Your task to perform on an android device: turn smart compose on in the gmail app Image 0: 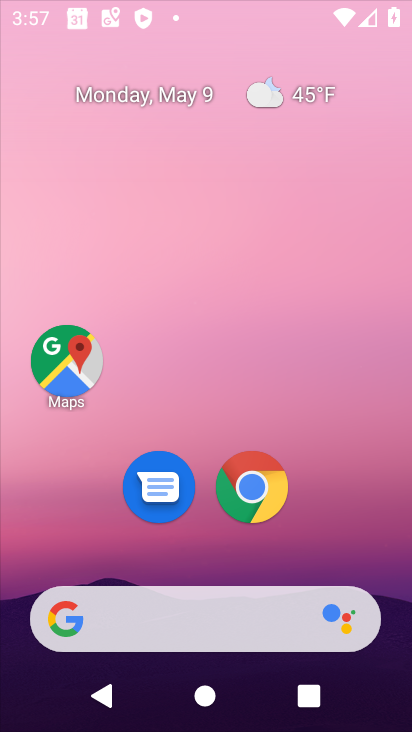
Step 0: click (129, 330)
Your task to perform on an android device: turn smart compose on in the gmail app Image 1: 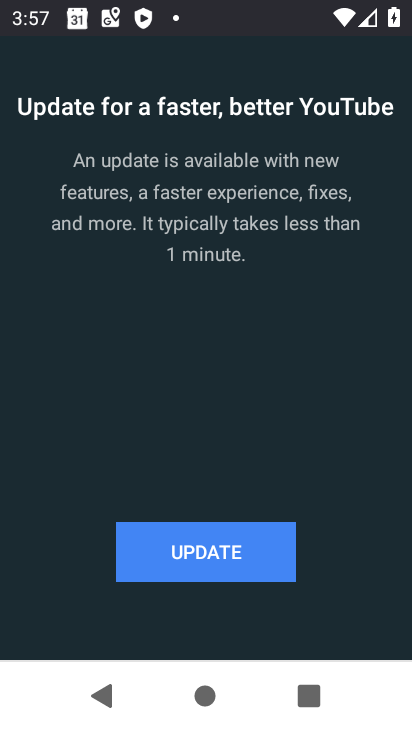
Step 1: press home button
Your task to perform on an android device: turn smart compose on in the gmail app Image 2: 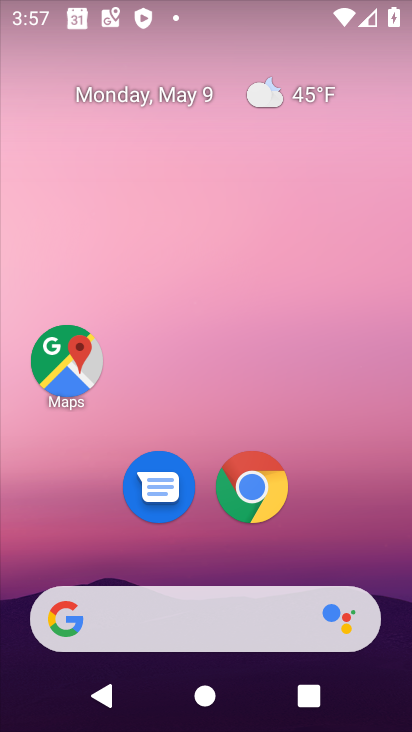
Step 2: drag from (178, 595) to (143, 348)
Your task to perform on an android device: turn smart compose on in the gmail app Image 3: 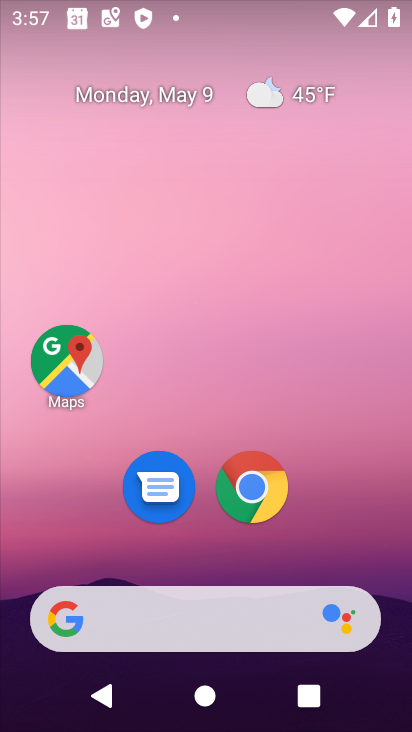
Step 3: drag from (207, 583) to (146, 226)
Your task to perform on an android device: turn smart compose on in the gmail app Image 4: 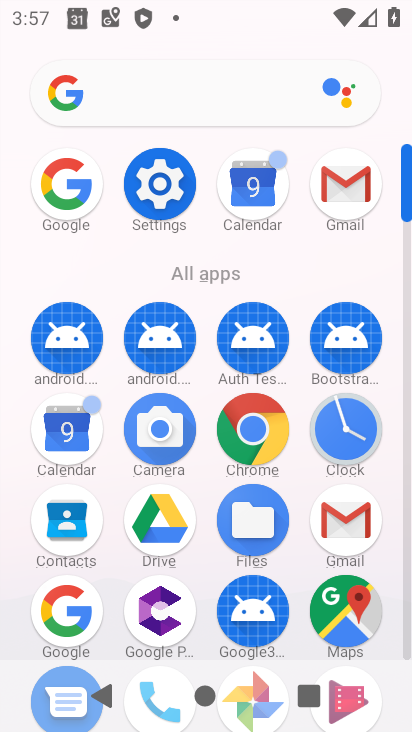
Step 4: click (328, 190)
Your task to perform on an android device: turn smart compose on in the gmail app Image 5: 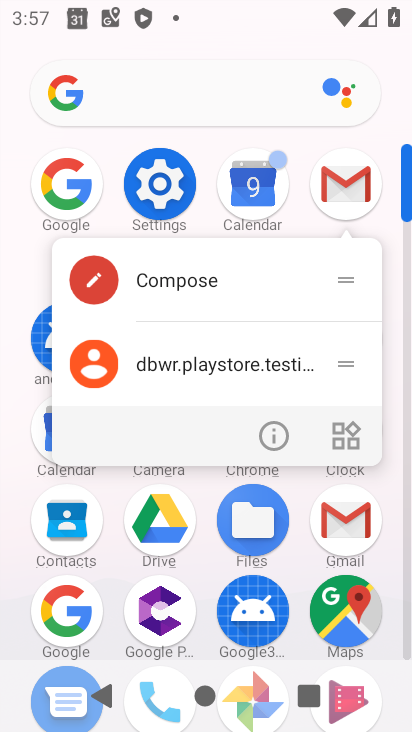
Step 5: click (353, 185)
Your task to perform on an android device: turn smart compose on in the gmail app Image 6: 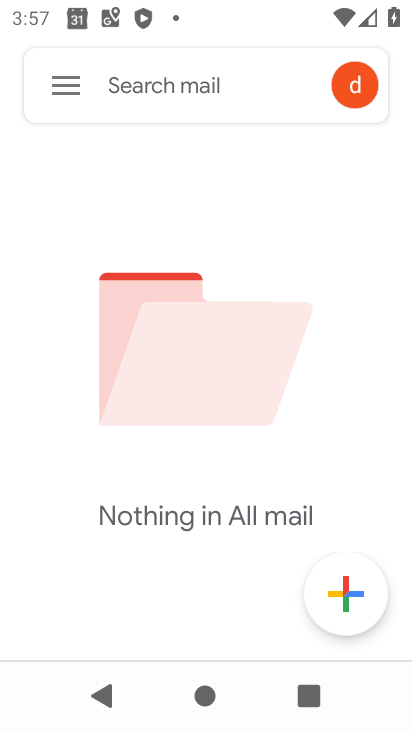
Step 6: click (80, 93)
Your task to perform on an android device: turn smart compose on in the gmail app Image 7: 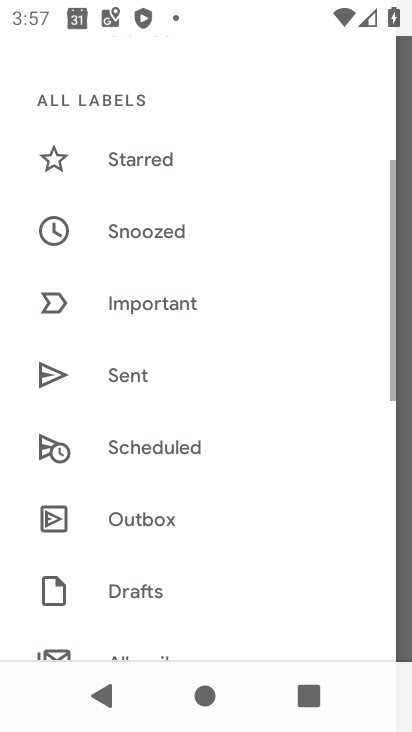
Step 7: drag from (148, 627) to (130, 264)
Your task to perform on an android device: turn smart compose on in the gmail app Image 8: 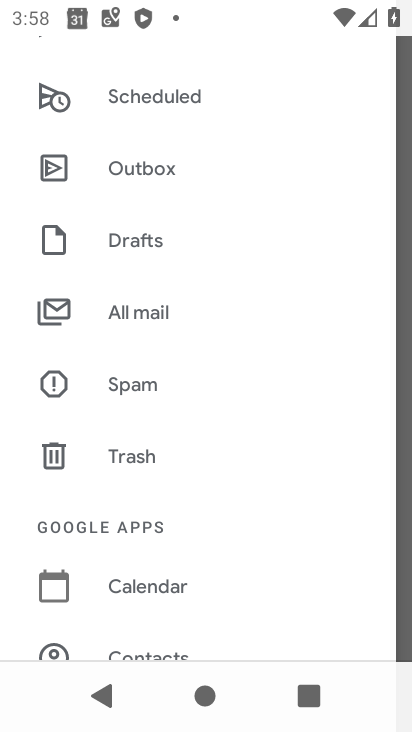
Step 8: drag from (127, 611) to (128, 323)
Your task to perform on an android device: turn smart compose on in the gmail app Image 9: 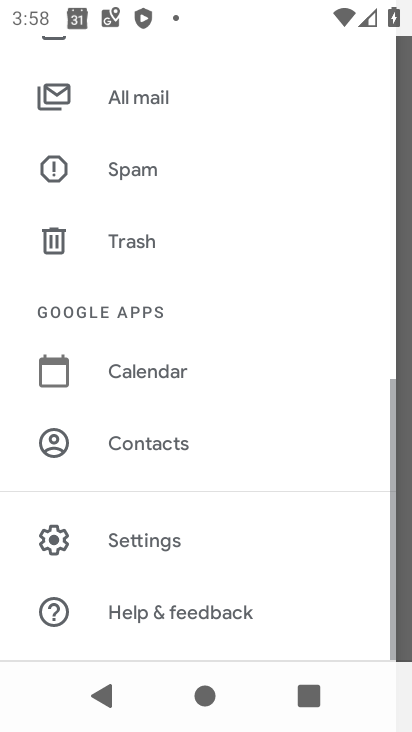
Step 9: click (149, 541)
Your task to perform on an android device: turn smart compose on in the gmail app Image 10: 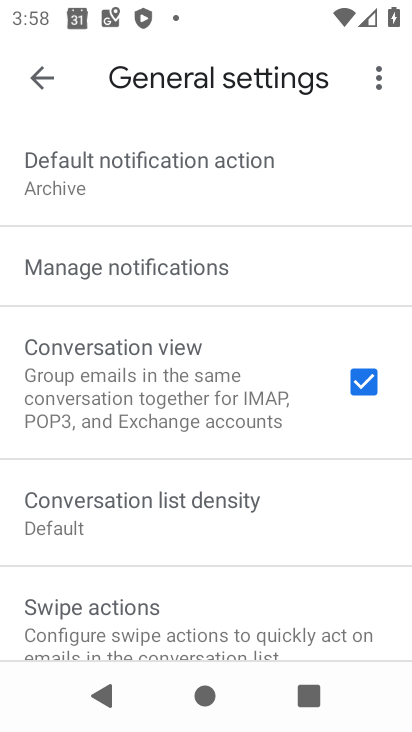
Step 10: drag from (156, 653) to (118, 391)
Your task to perform on an android device: turn smart compose on in the gmail app Image 11: 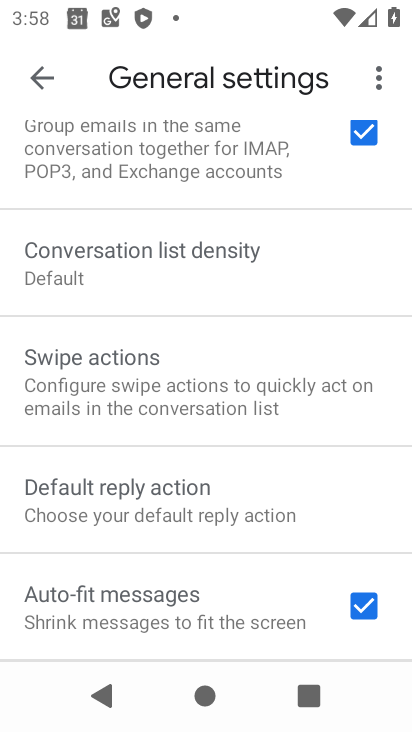
Step 11: drag from (98, 603) to (87, 431)
Your task to perform on an android device: turn smart compose on in the gmail app Image 12: 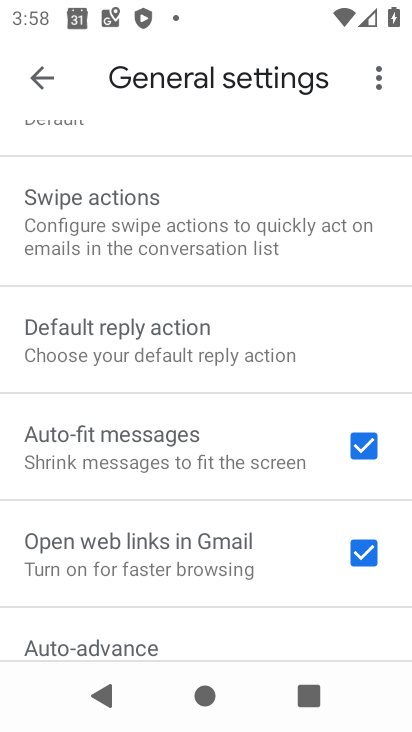
Step 12: drag from (115, 636) to (89, 418)
Your task to perform on an android device: turn smart compose on in the gmail app Image 13: 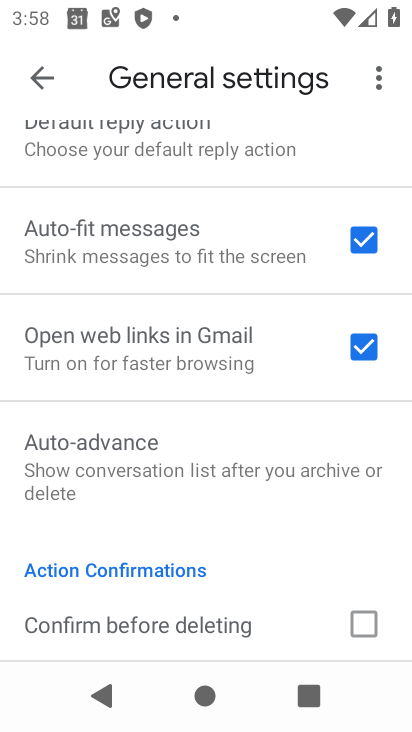
Step 13: drag from (116, 636) to (101, 463)
Your task to perform on an android device: turn smart compose on in the gmail app Image 14: 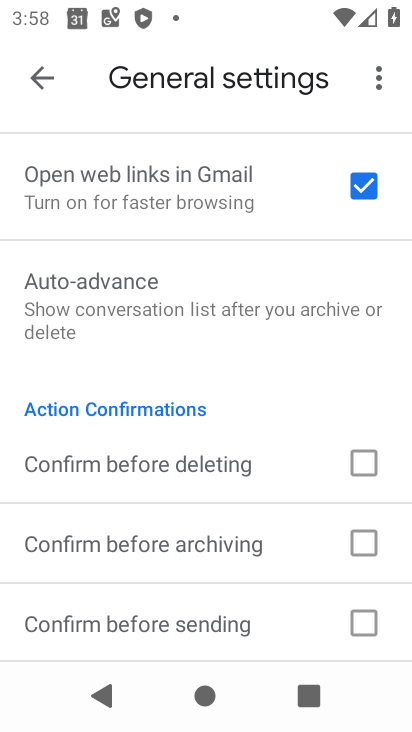
Step 14: drag from (117, 208) to (119, 577)
Your task to perform on an android device: turn smart compose on in the gmail app Image 15: 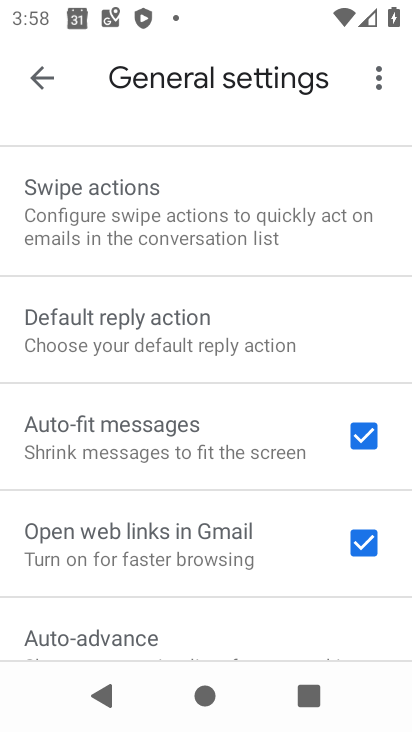
Step 15: drag from (136, 234) to (131, 587)
Your task to perform on an android device: turn smart compose on in the gmail app Image 16: 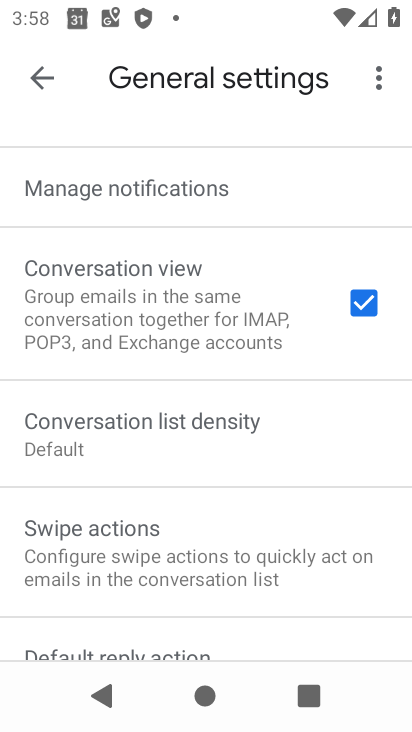
Step 16: drag from (134, 220) to (114, 539)
Your task to perform on an android device: turn smart compose on in the gmail app Image 17: 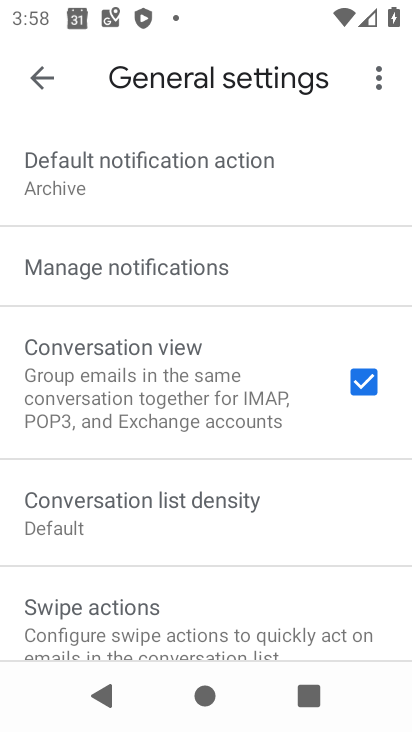
Step 17: click (35, 91)
Your task to perform on an android device: turn smart compose on in the gmail app Image 18: 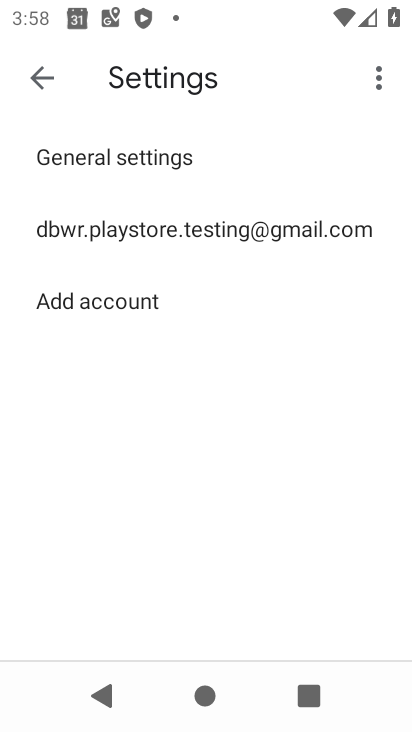
Step 18: click (78, 224)
Your task to perform on an android device: turn smart compose on in the gmail app Image 19: 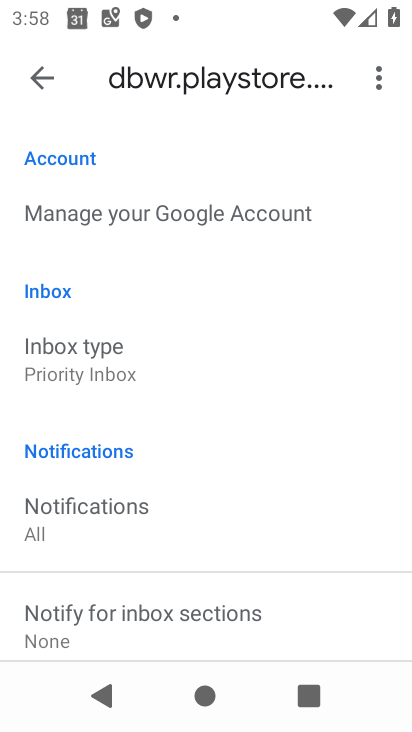
Step 19: task complete